Your task to perform on an android device: Go to eBay Image 0: 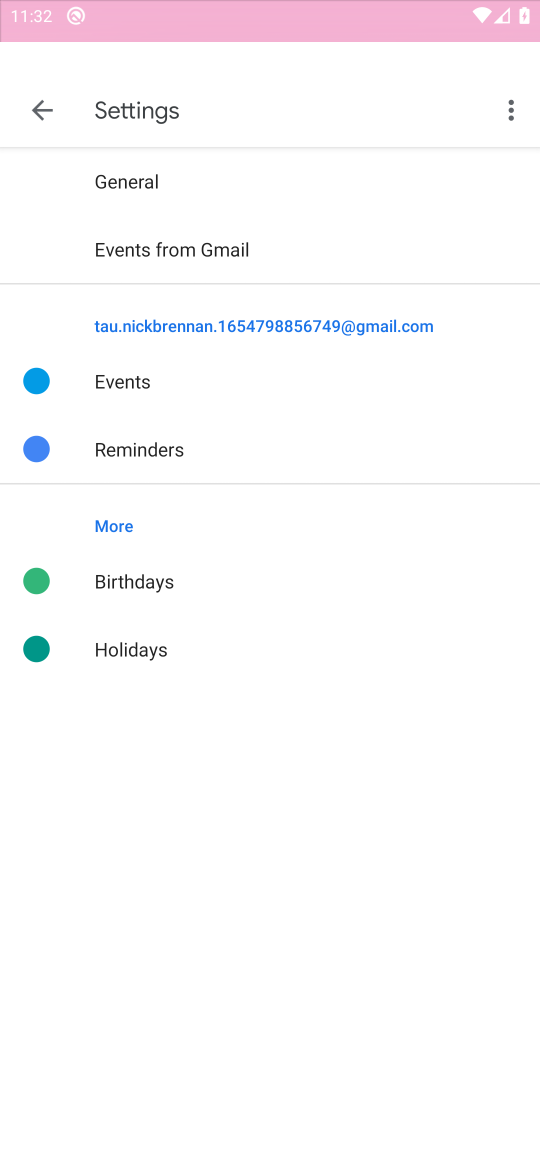
Step 0: press home button
Your task to perform on an android device: Go to eBay Image 1: 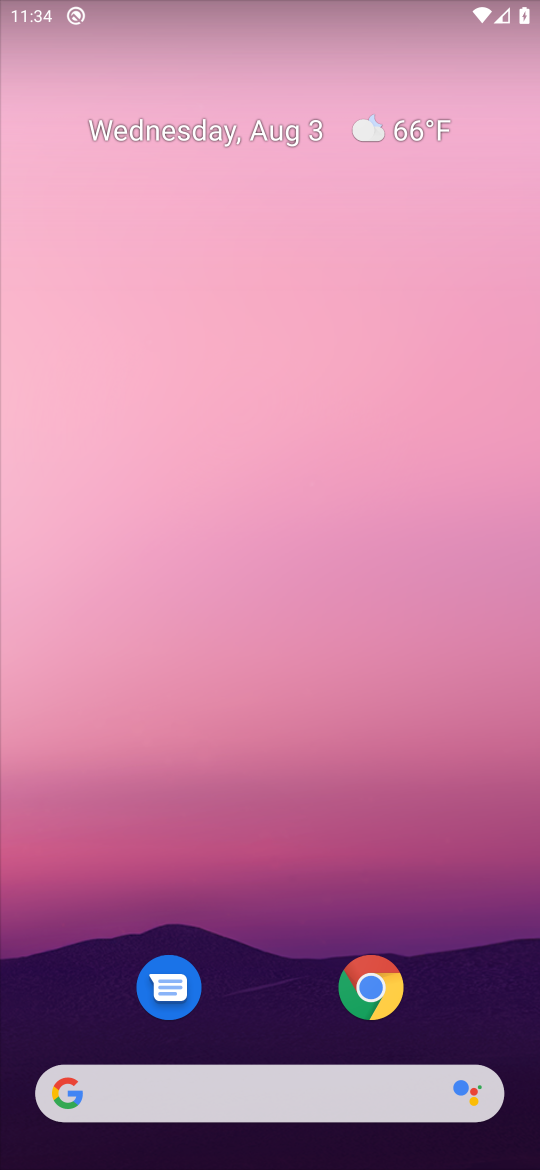
Step 1: drag from (291, 1081) to (257, 88)
Your task to perform on an android device: Go to eBay Image 2: 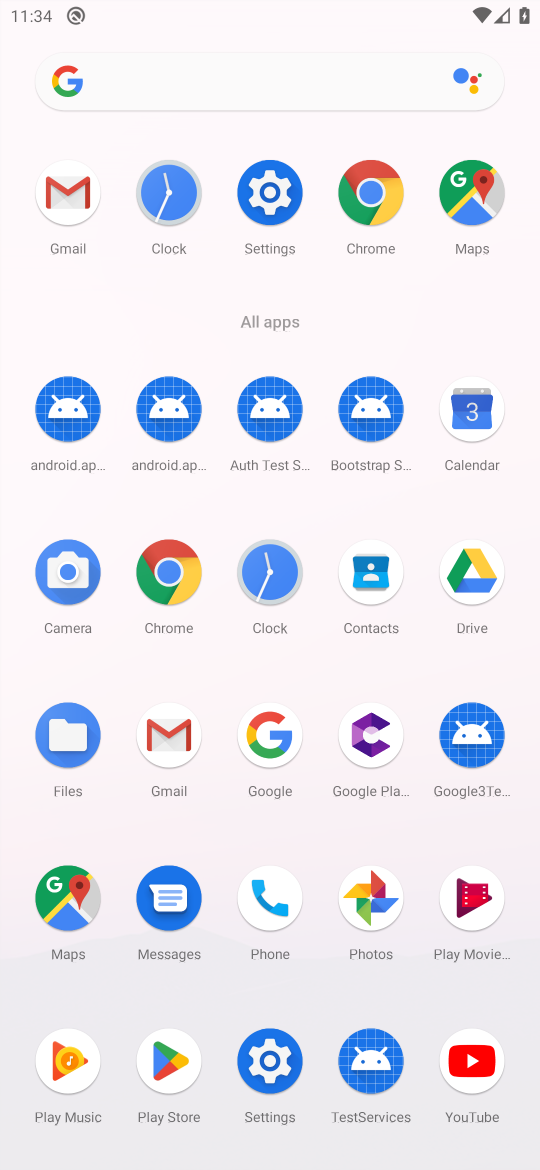
Step 2: click (278, 741)
Your task to perform on an android device: Go to eBay Image 3: 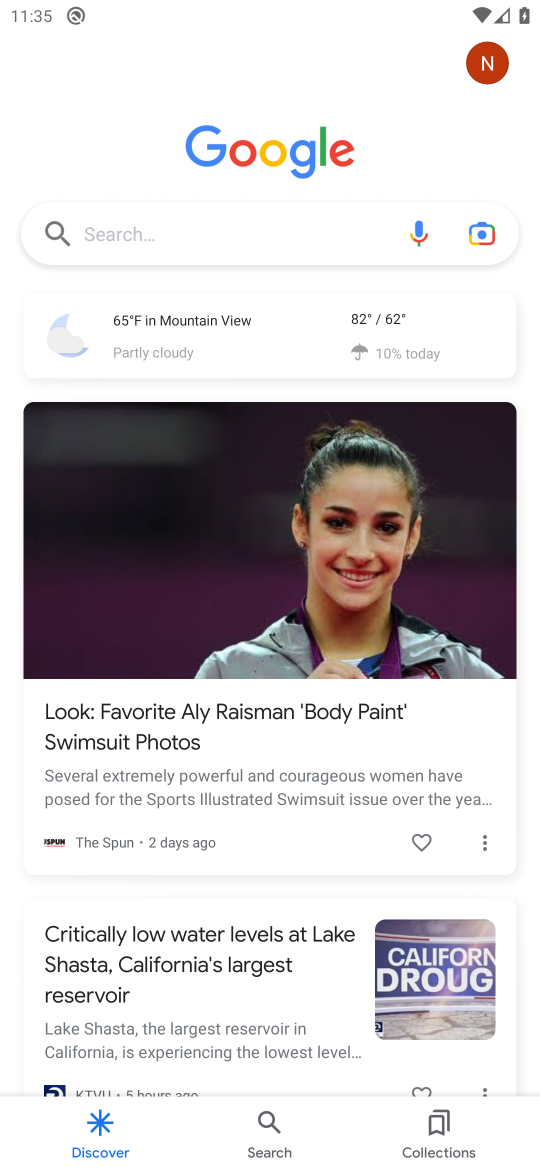
Step 3: click (237, 240)
Your task to perform on an android device: Go to eBay Image 4: 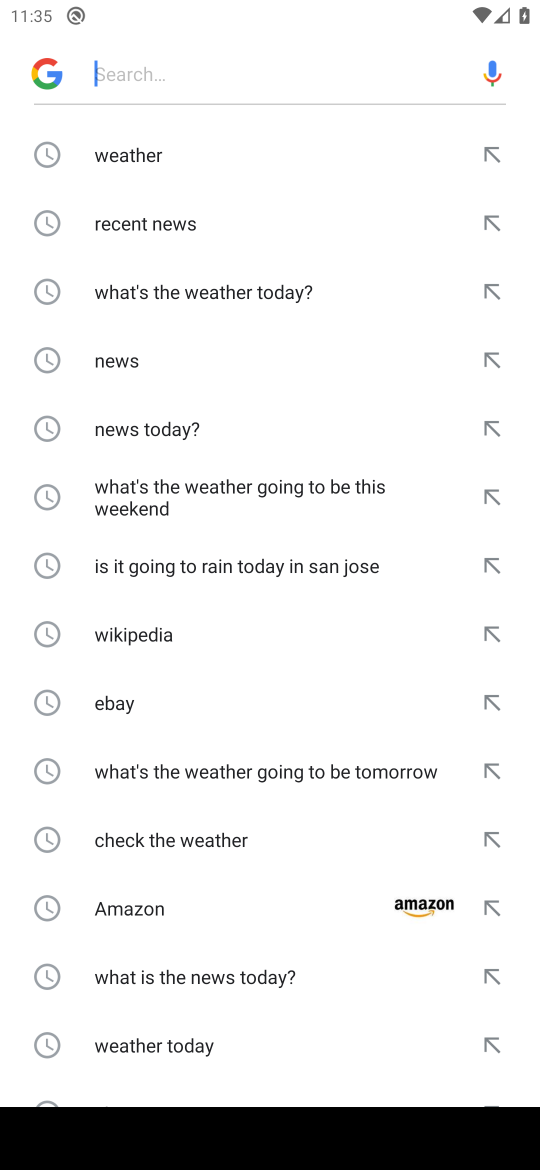
Step 4: click (145, 703)
Your task to perform on an android device: Go to eBay Image 5: 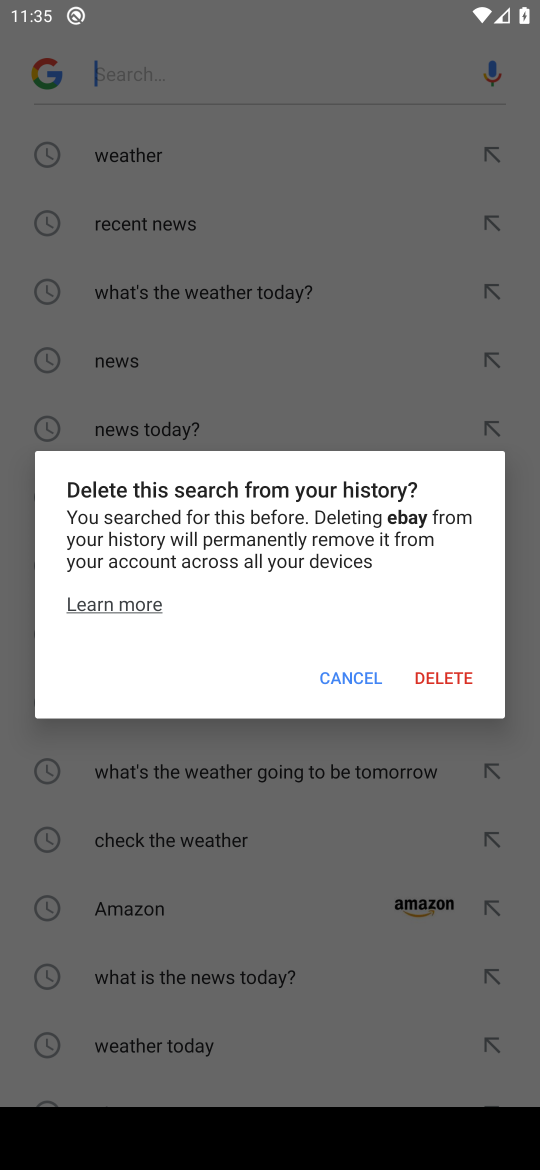
Step 5: click (364, 686)
Your task to perform on an android device: Go to eBay Image 6: 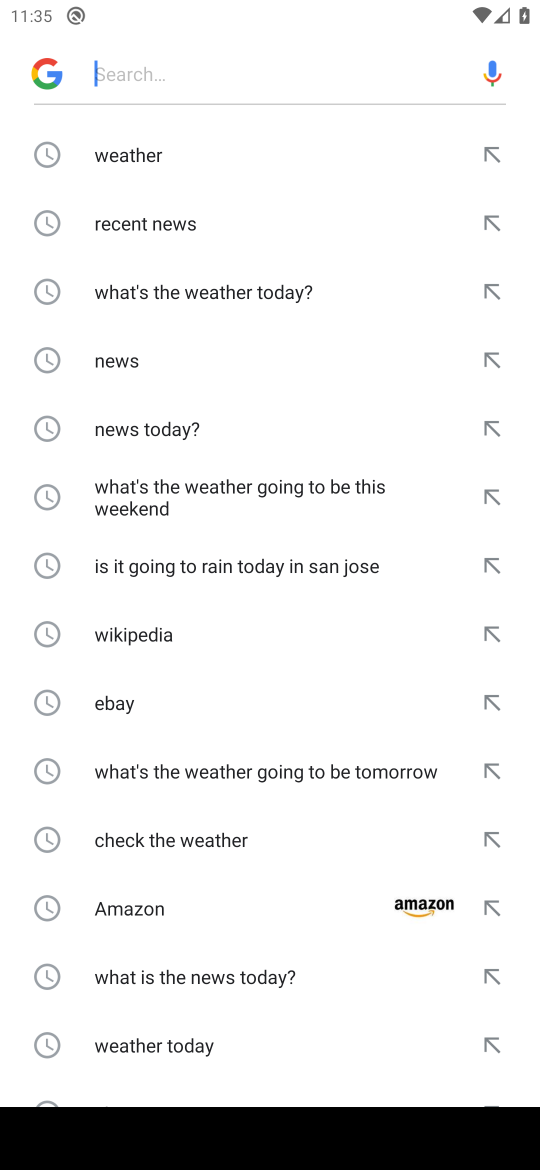
Step 6: click (109, 703)
Your task to perform on an android device: Go to eBay Image 7: 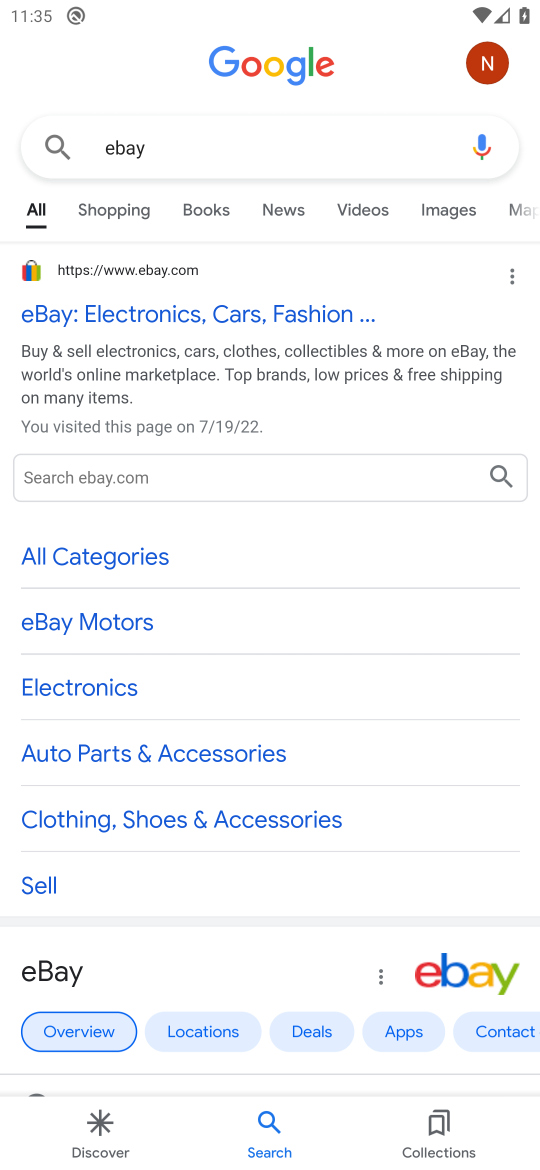
Step 7: click (329, 308)
Your task to perform on an android device: Go to eBay Image 8: 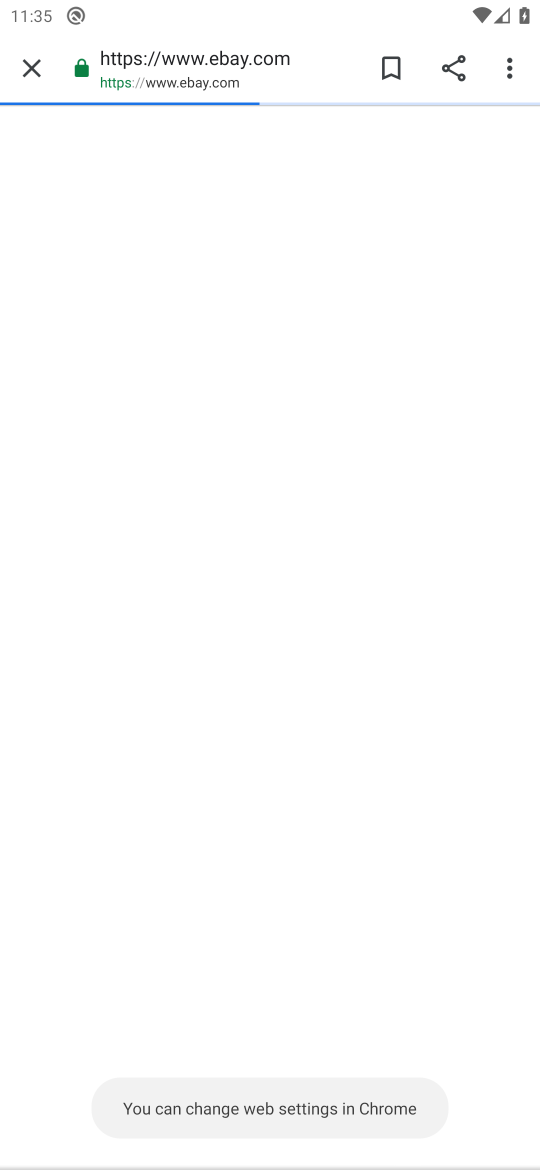
Step 8: task complete